Your task to perform on an android device: find which apps use the phone's location Image 0: 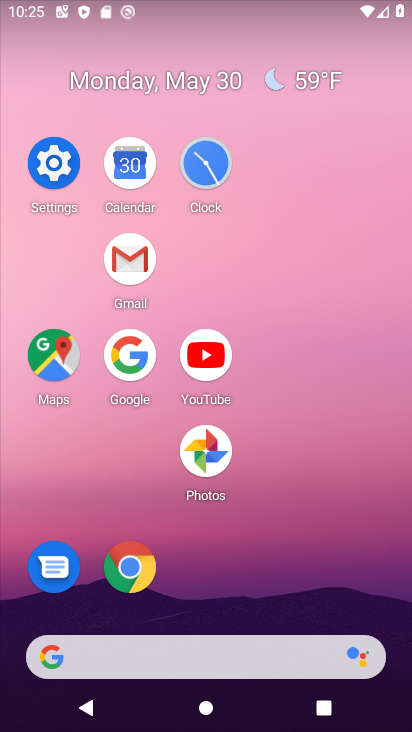
Step 0: click (43, 159)
Your task to perform on an android device: find which apps use the phone's location Image 1: 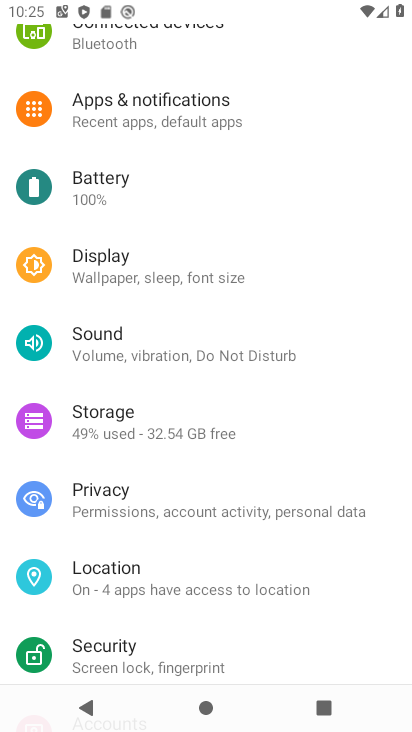
Step 1: click (202, 568)
Your task to perform on an android device: find which apps use the phone's location Image 2: 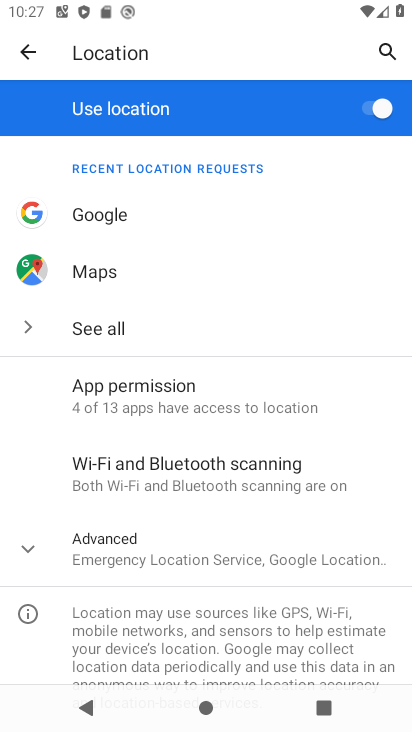
Step 2: task complete